Your task to perform on an android device: turn off translation in the chrome app Image 0: 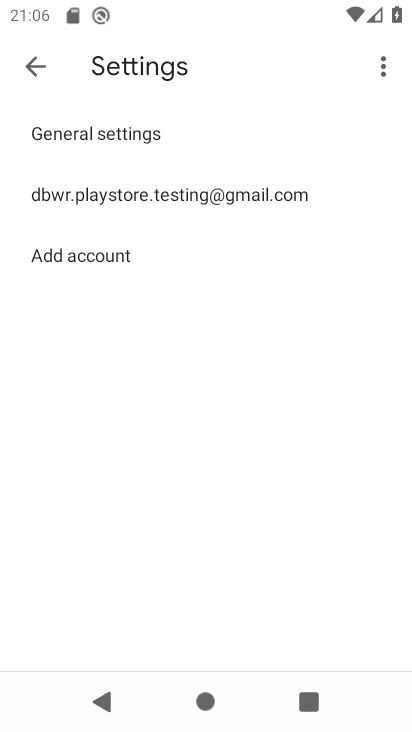
Step 0: press home button
Your task to perform on an android device: turn off translation in the chrome app Image 1: 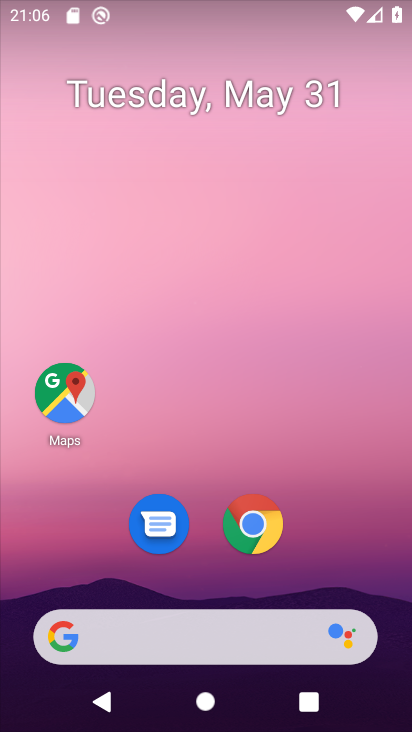
Step 1: click (255, 531)
Your task to perform on an android device: turn off translation in the chrome app Image 2: 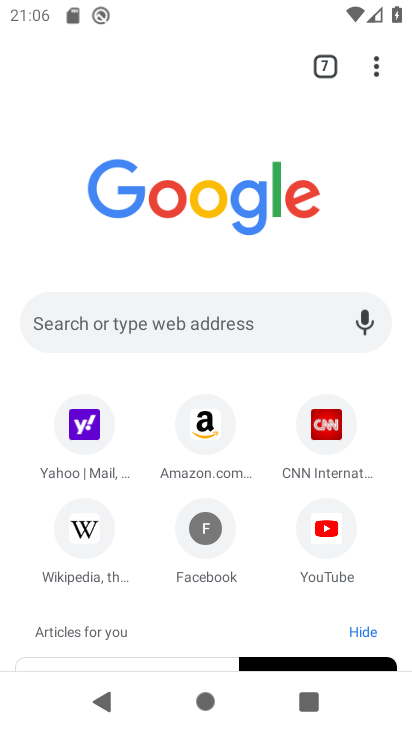
Step 2: click (373, 63)
Your task to perform on an android device: turn off translation in the chrome app Image 3: 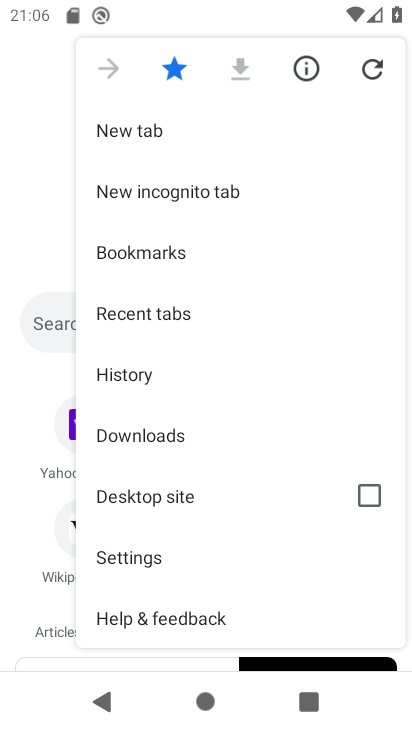
Step 3: click (187, 551)
Your task to perform on an android device: turn off translation in the chrome app Image 4: 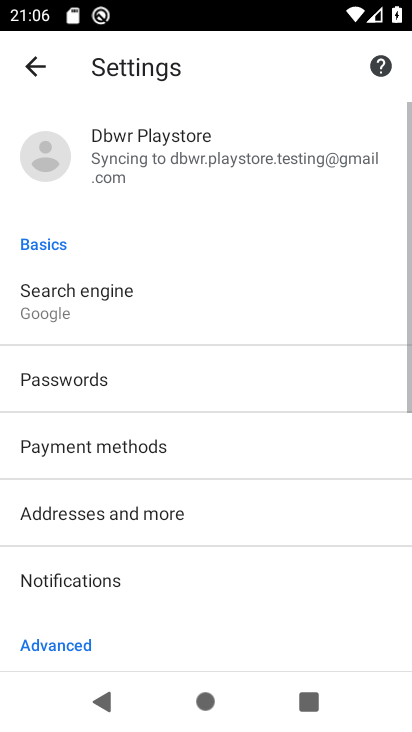
Step 4: drag from (252, 530) to (276, 251)
Your task to perform on an android device: turn off translation in the chrome app Image 5: 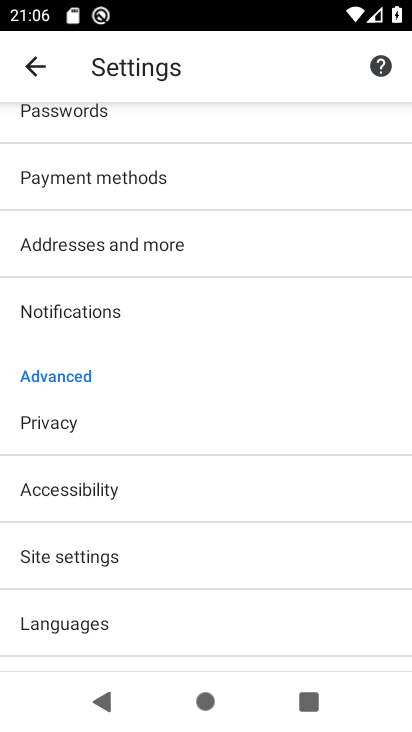
Step 5: click (203, 625)
Your task to perform on an android device: turn off translation in the chrome app Image 6: 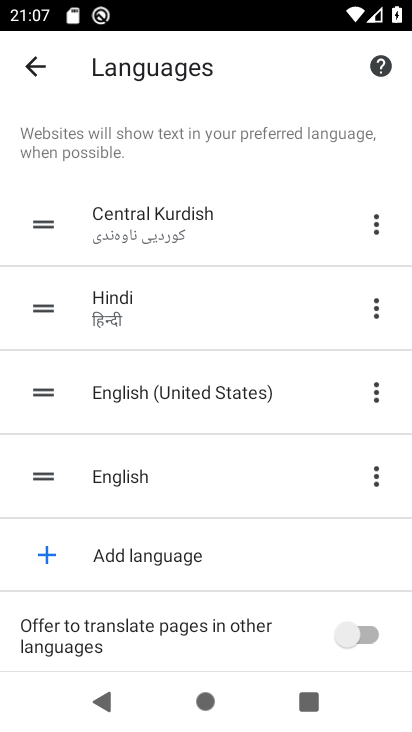
Step 6: task complete